Your task to perform on an android device: Open Google Image 0: 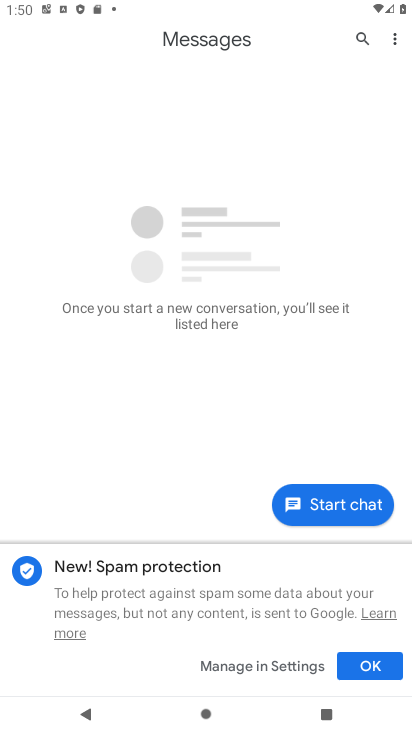
Step 0: press home button
Your task to perform on an android device: Open Google Image 1: 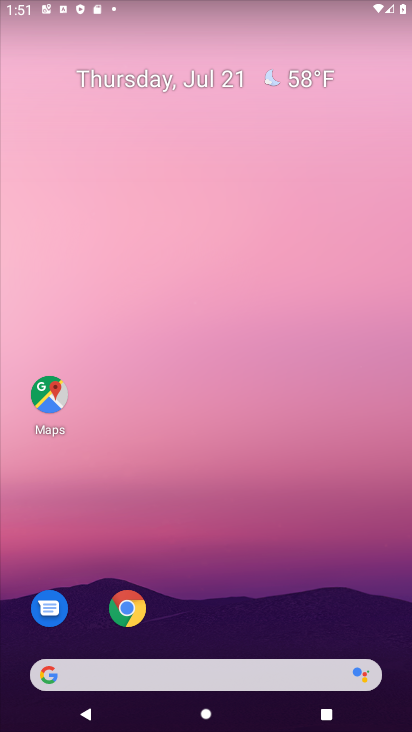
Step 1: drag from (319, 611) to (221, 57)
Your task to perform on an android device: Open Google Image 2: 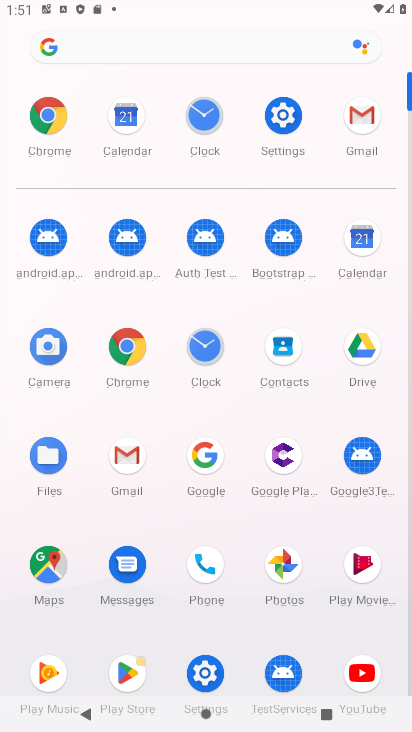
Step 2: click (198, 454)
Your task to perform on an android device: Open Google Image 3: 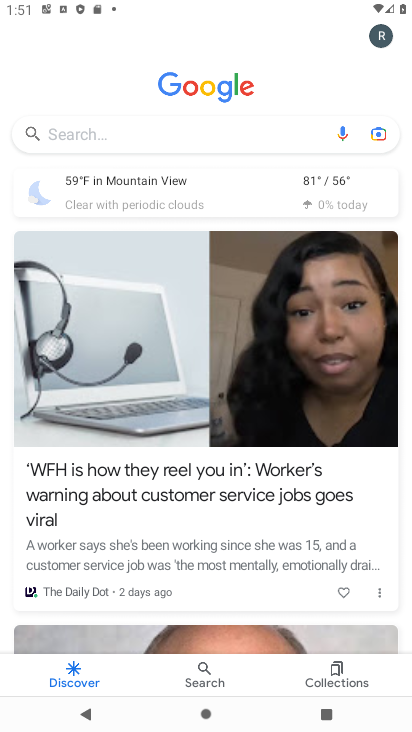
Step 3: task complete